Your task to perform on an android device: turn on location history Image 0: 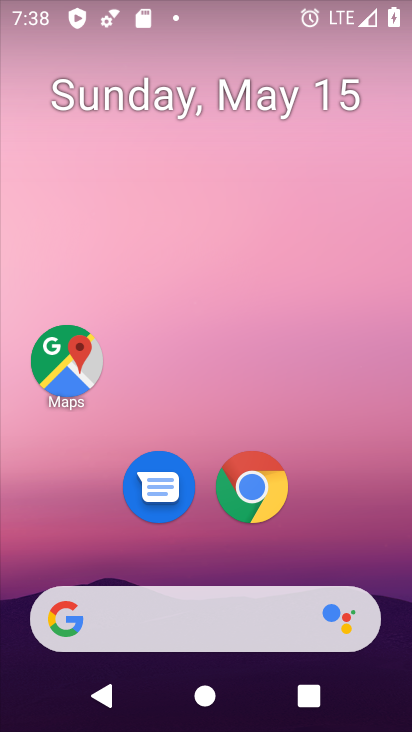
Step 0: drag from (345, 521) to (345, 111)
Your task to perform on an android device: turn on location history Image 1: 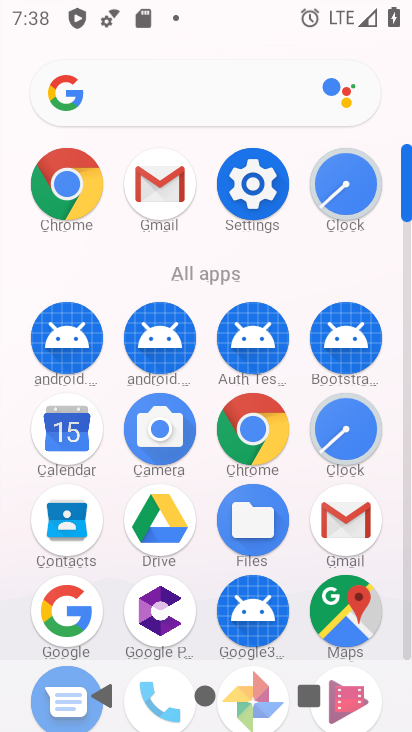
Step 1: drag from (215, 609) to (228, 339)
Your task to perform on an android device: turn on location history Image 2: 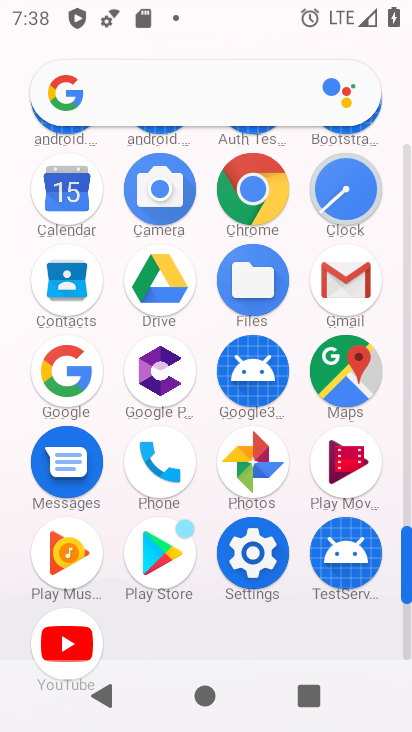
Step 2: click (245, 558)
Your task to perform on an android device: turn on location history Image 3: 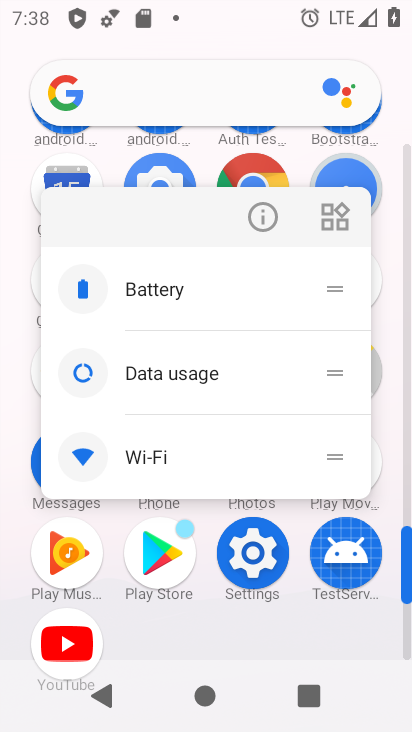
Step 3: click (250, 568)
Your task to perform on an android device: turn on location history Image 4: 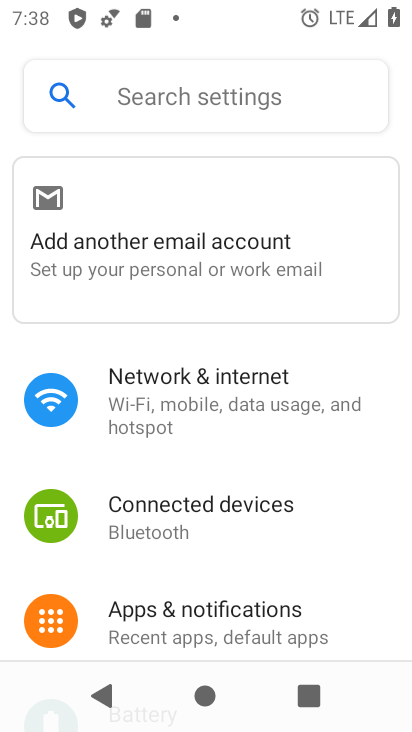
Step 4: drag from (247, 551) to (250, 298)
Your task to perform on an android device: turn on location history Image 5: 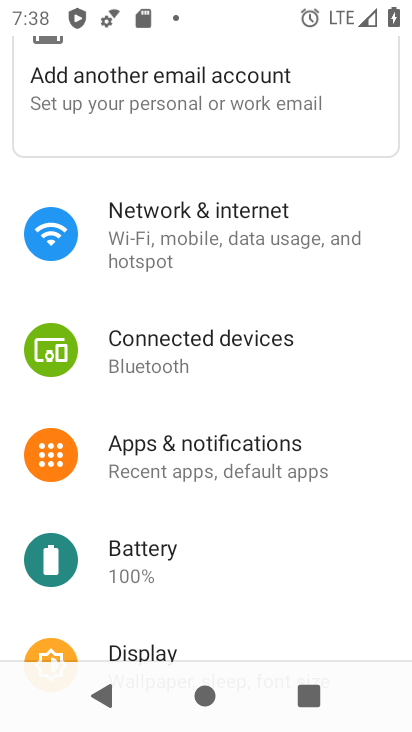
Step 5: drag from (265, 610) to (297, 269)
Your task to perform on an android device: turn on location history Image 6: 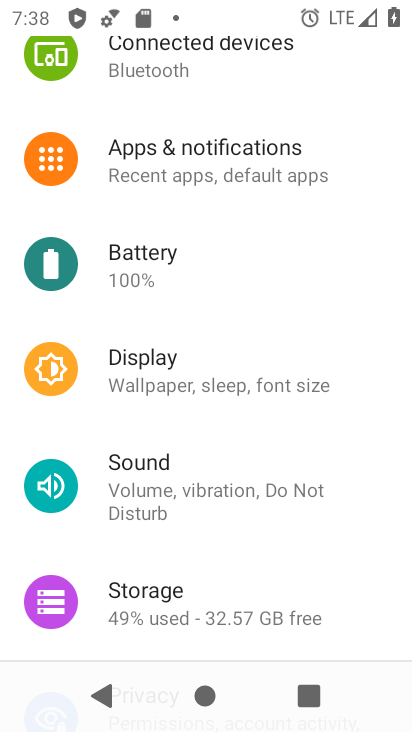
Step 6: drag from (265, 604) to (280, 273)
Your task to perform on an android device: turn on location history Image 7: 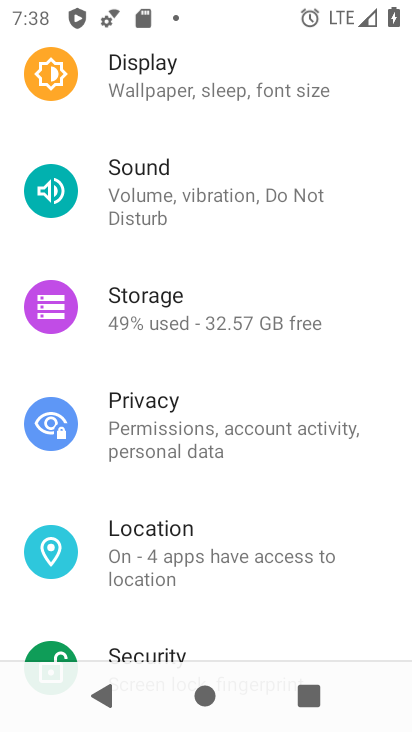
Step 7: click (235, 550)
Your task to perform on an android device: turn on location history Image 8: 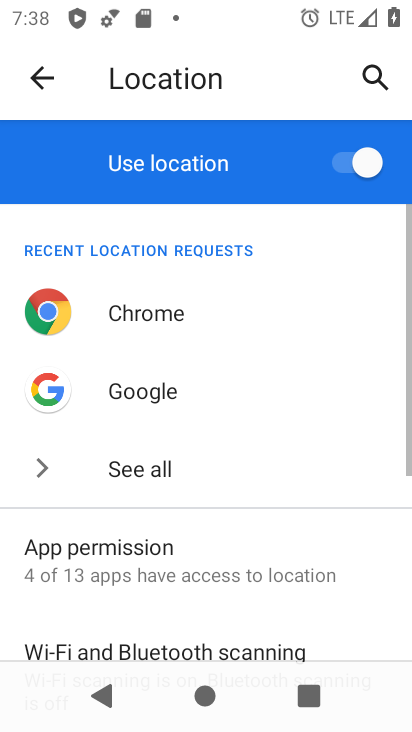
Step 8: drag from (334, 617) to (305, 279)
Your task to perform on an android device: turn on location history Image 9: 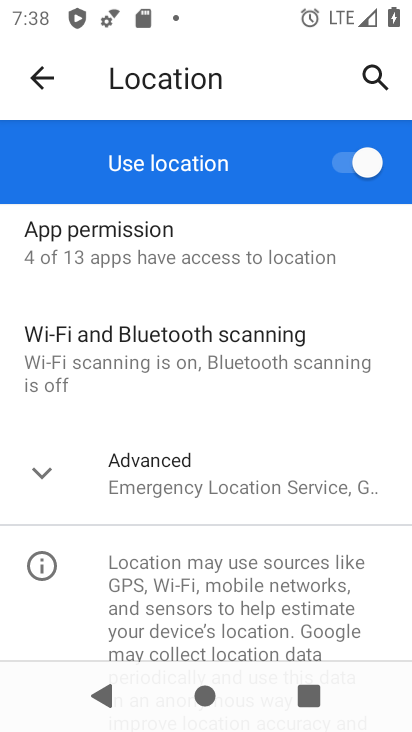
Step 9: click (325, 490)
Your task to perform on an android device: turn on location history Image 10: 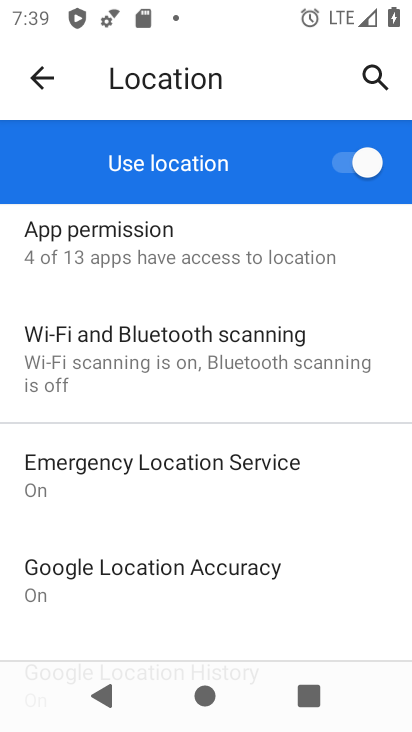
Step 10: drag from (328, 636) to (309, 339)
Your task to perform on an android device: turn on location history Image 11: 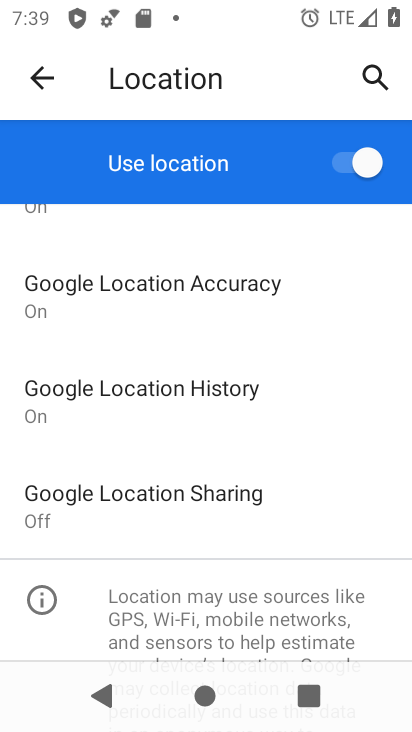
Step 11: click (174, 394)
Your task to perform on an android device: turn on location history Image 12: 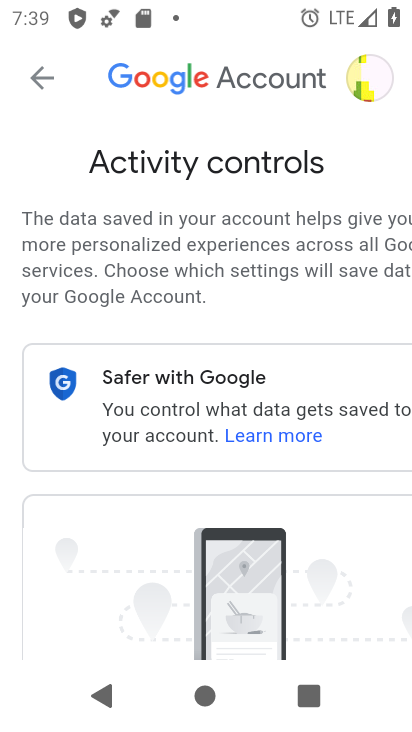
Step 12: task complete